Your task to perform on an android device: turn off notifications in google photos Image 0: 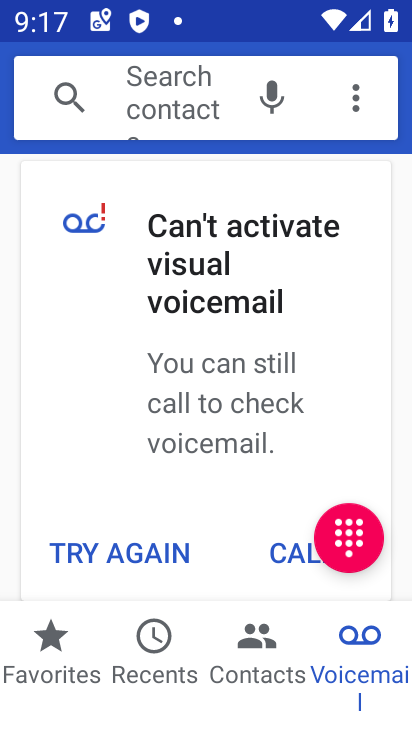
Step 0: press home button
Your task to perform on an android device: turn off notifications in google photos Image 1: 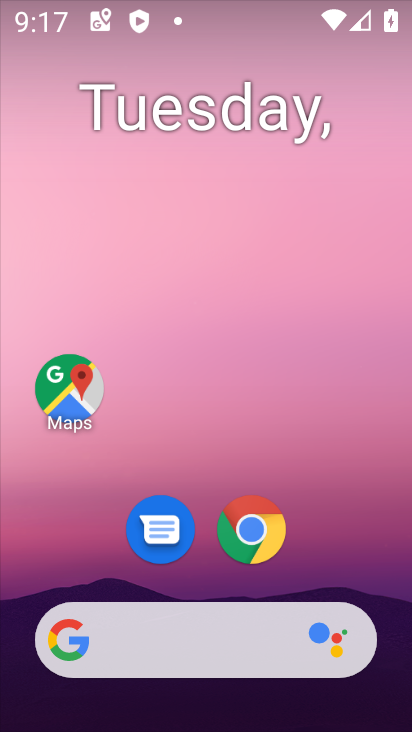
Step 1: drag from (287, 484) to (251, 140)
Your task to perform on an android device: turn off notifications in google photos Image 2: 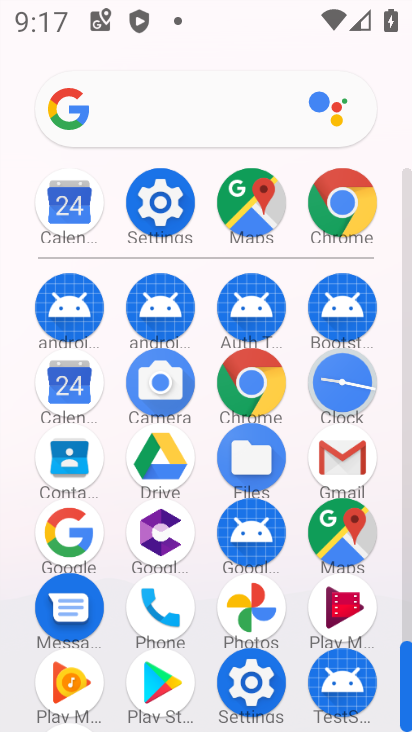
Step 2: click (248, 601)
Your task to perform on an android device: turn off notifications in google photos Image 3: 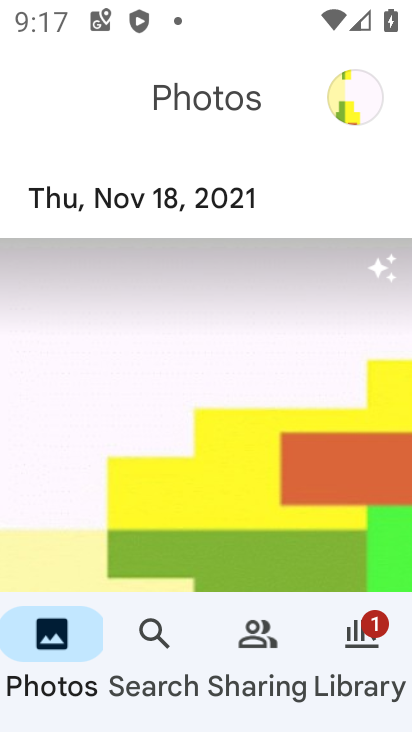
Step 3: click (357, 111)
Your task to perform on an android device: turn off notifications in google photos Image 4: 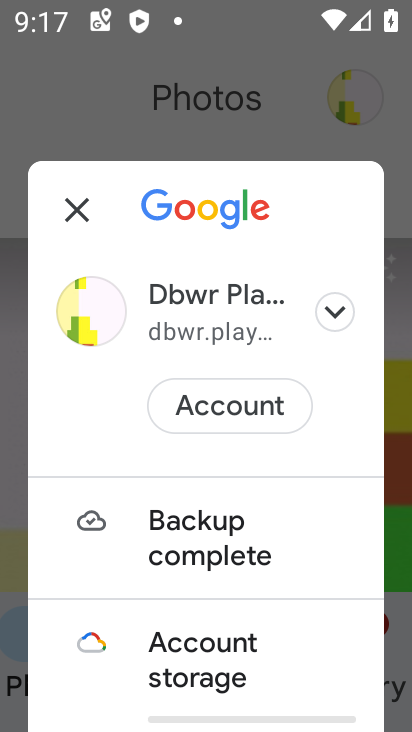
Step 4: drag from (200, 603) to (147, 397)
Your task to perform on an android device: turn off notifications in google photos Image 5: 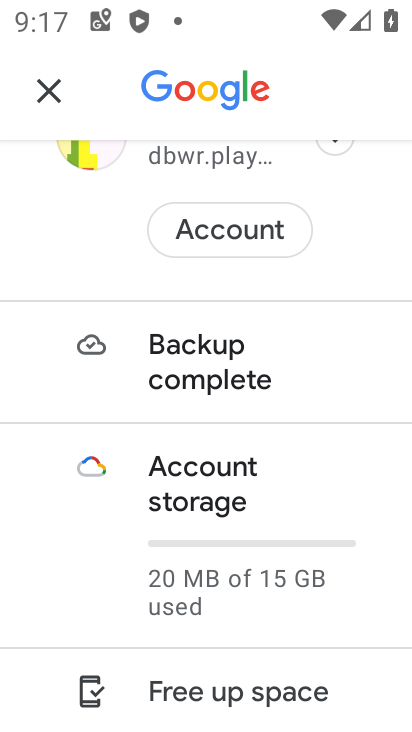
Step 5: drag from (184, 554) to (191, 271)
Your task to perform on an android device: turn off notifications in google photos Image 6: 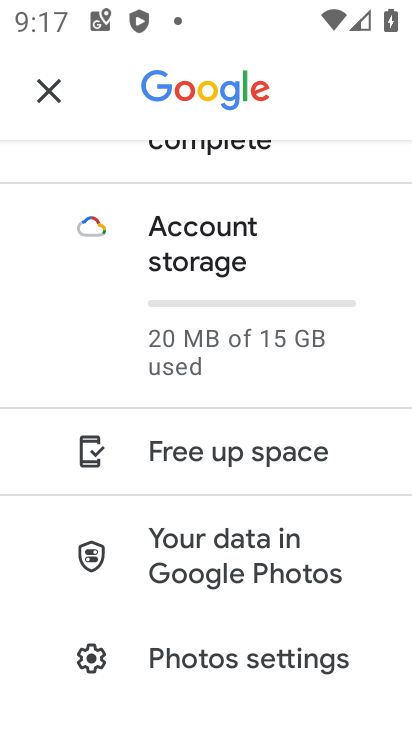
Step 6: drag from (220, 547) to (202, 332)
Your task to perform on an android device: turn off notifications in google photos Image 7: 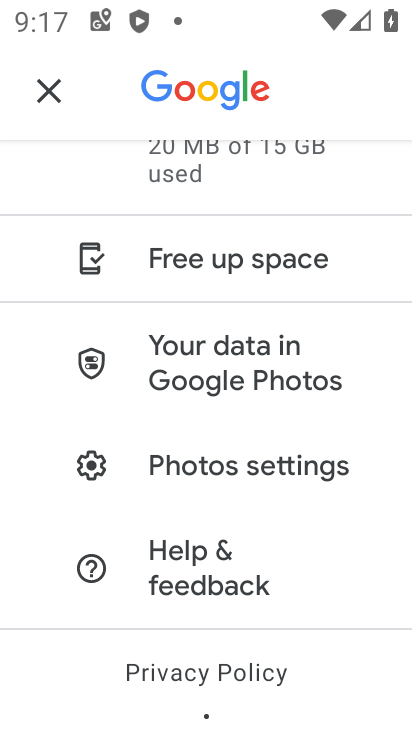
Step 7: click (220, 471)
Your task to perform on an android device: turn off notifications in google photos Image 8: 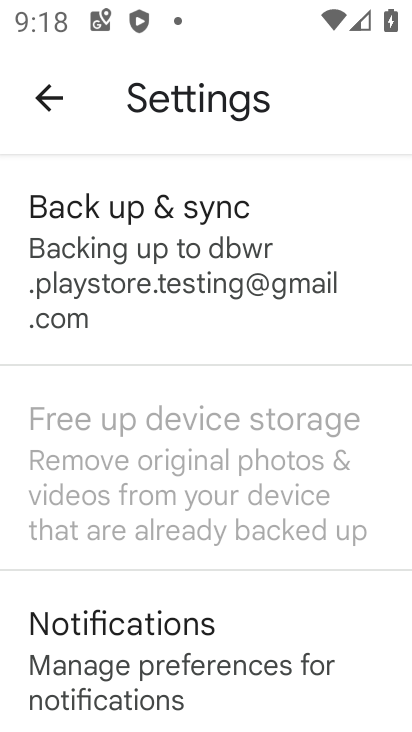
Step 8: click (242, 638)
Your task to perform on an android device: turn off notifications in google photos Image 9: 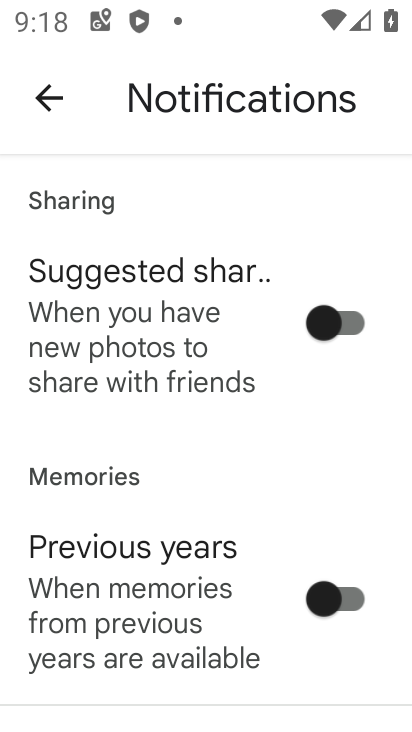
Step 9: drag from (242, 638) to (209, 362)
Your task to perform on an android device: turn off notifications in google photos Image 10: 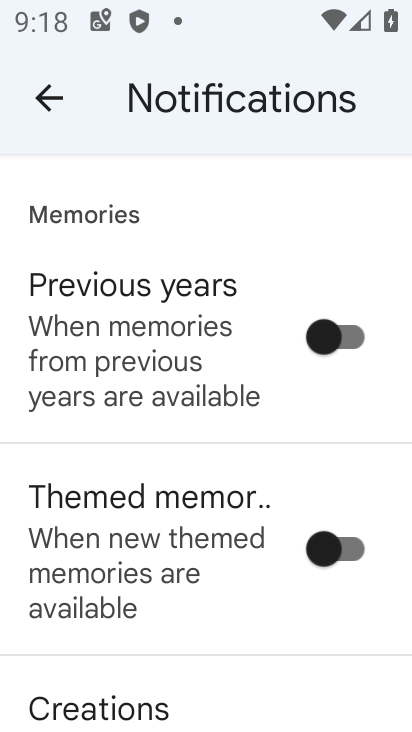
Step 10: drag from (232, 589) to (272, 273)
Your task to perform on an android device: turn off notifications in google photos Image 11: 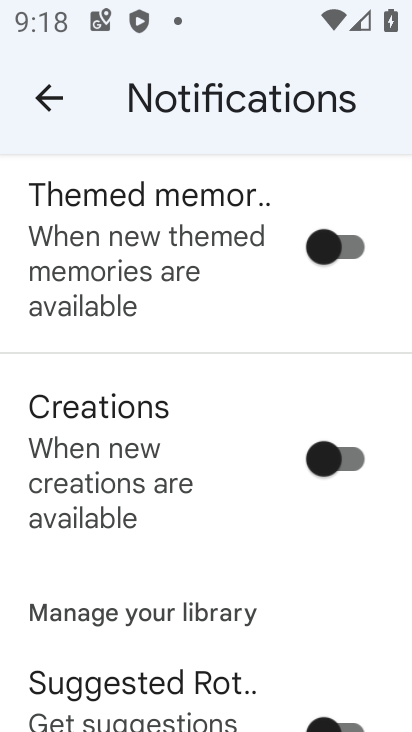
Step 11: drag from (255, 609) to (257, 295)
Your task to perform on an android device: turn off notifications in google photos Image 12: 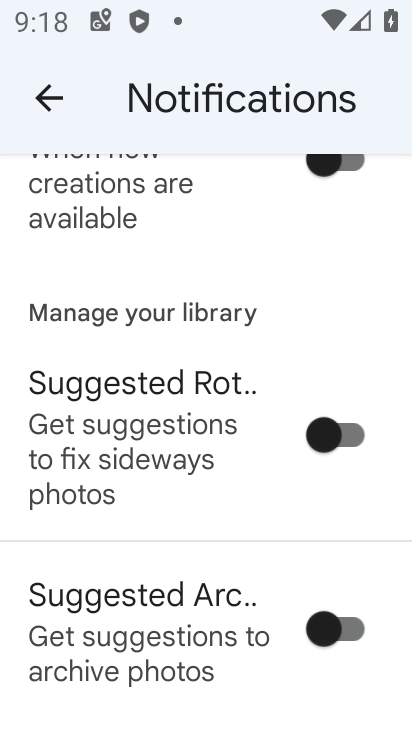
Step 12: drag from (259, 539) to (240, 288)
Your task to perform on an android device: turn off notifications in google photos Image 13: 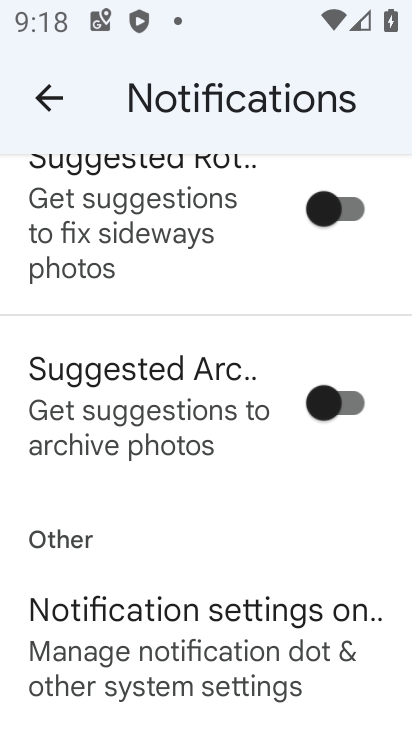
Step 13: drag from (231, 622) to (215, 456)
Your task to perform on an android device: turn off notifications in google photos Image 14: 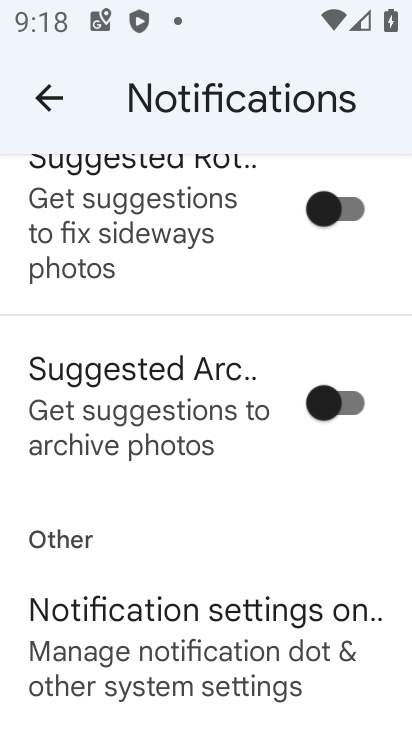
Step 14: click (220, 615)
Your task to perform on an android device: turn off notifications in google photos Image 15: 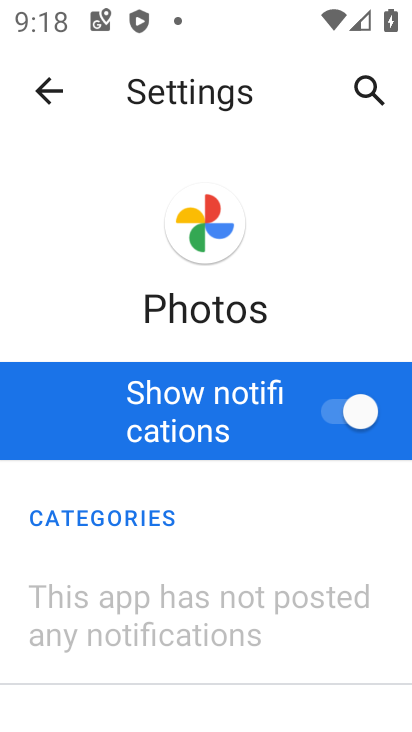
Step 15: click (239, 408)
Your task to perform on an android device: turn off notifications in google photos Image 16: 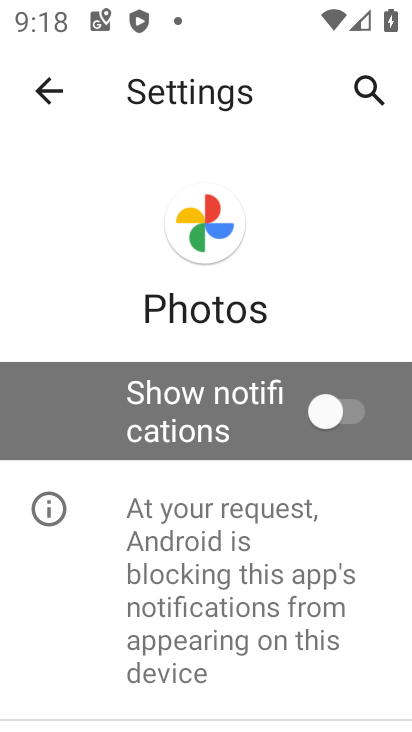
Step 16: task complete